Your task to perform on an android device: Open sound settings Image 0: 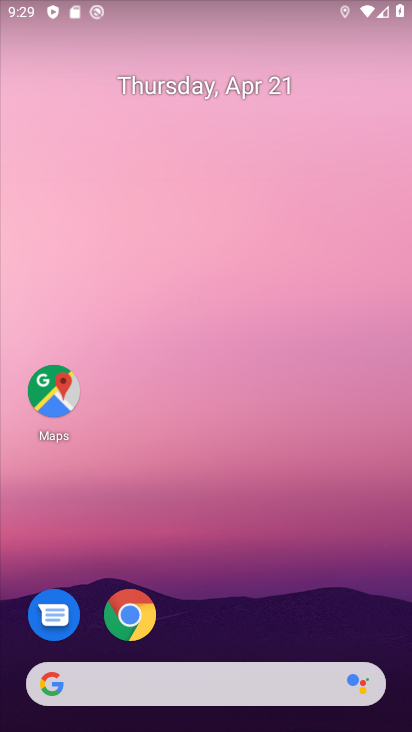
Step 0: drag from (210, 525) to (205, 196)
Your task to perform on an android device: Open sound settings Image 1: 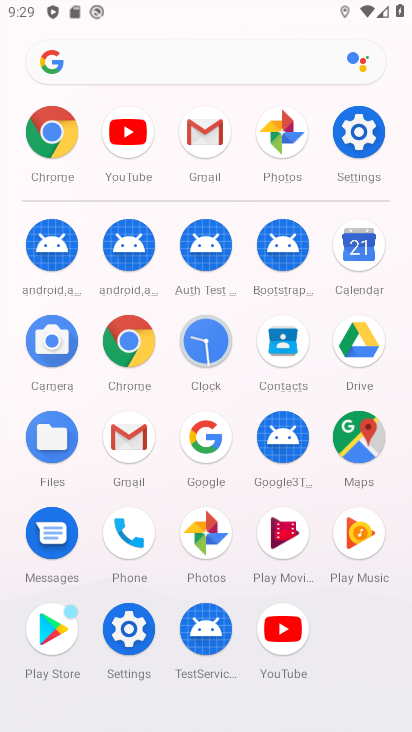
Step 1: click (355, 138)
Your task to perform on an android device: Open sound settings Image 2: 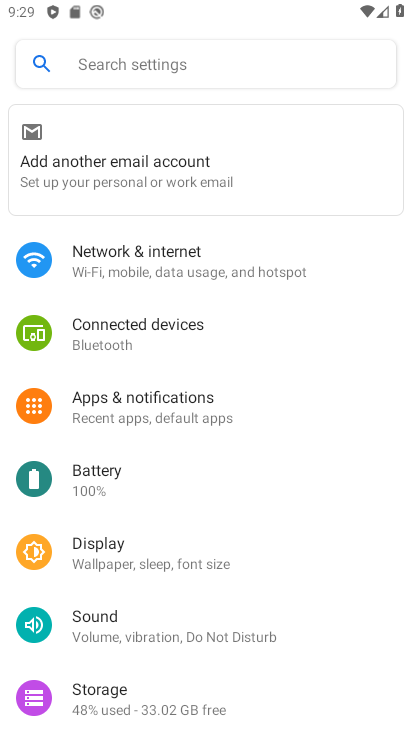
Step 2: click (131, 626)
Your task to perform on an android device: Open sound settings Image 3: 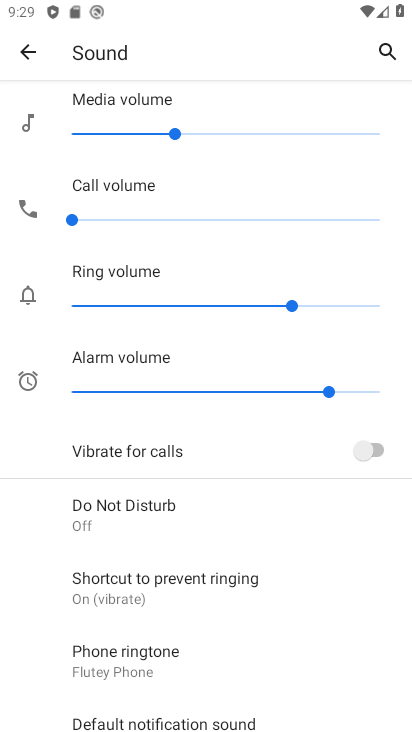
Step 3: task complete